Your task to perform on an android device: Show me the alarms in the clock app Image 0: 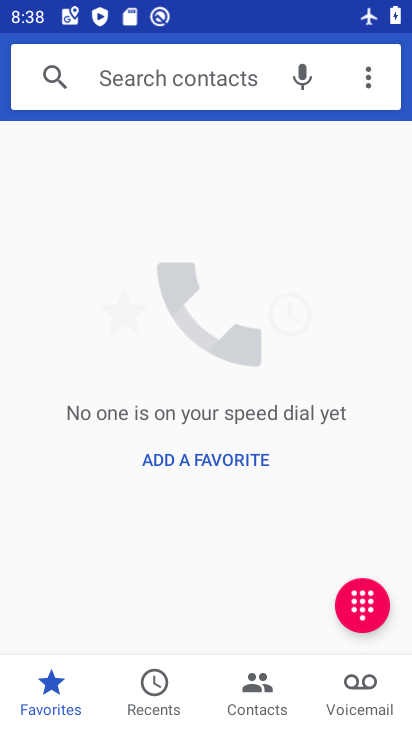
Step 0: press home button
Your task to perform on an android device: Show me the alarms in the clock app Image 1: 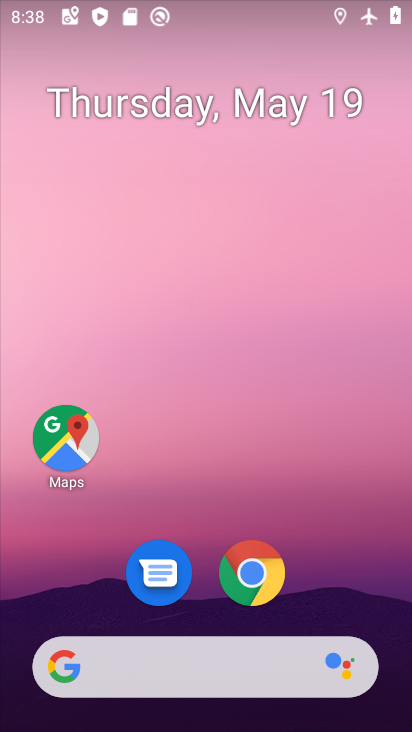
Step 1: drag from (344, 611) to (360, 15)
Your task to perform on an android device: Show me the alarms in the clock app Image 2: 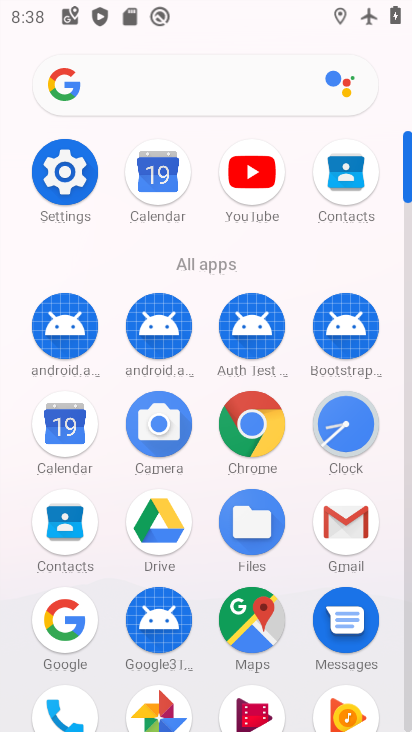
Step 2: click (341, 440)
Your task to perform on an android device: Show me the alarms in the clock app Image 3: 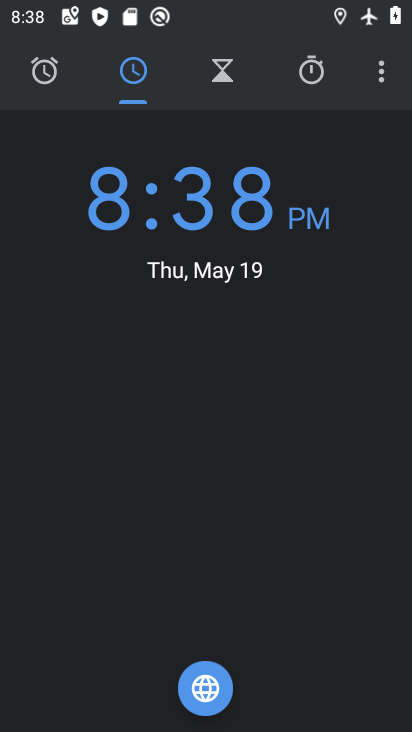
Step 3: click (52, 88)
Your task to perform on an android device: Show me the alarms in the clock app Image 4: 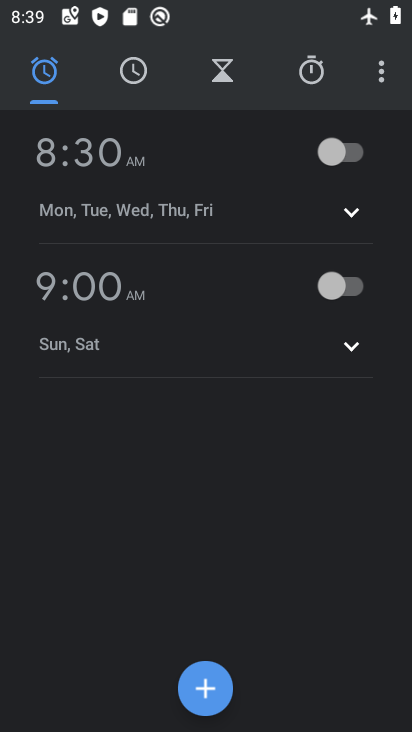
Step 4: task complete